Your task to perform on an android device: Open the Play Movies app and select the watchlist tab. Image 0: 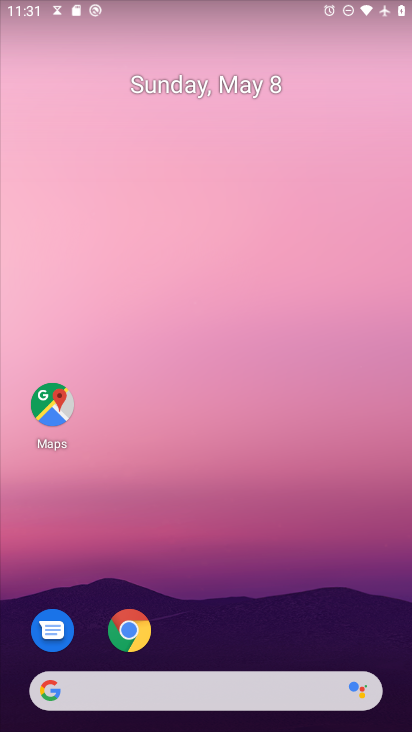
Step 0: drag from (146, 702) to (277, 209)
Your task to perform on an android device: Open the Play Movies app and select the watchlist tab. Image 1: 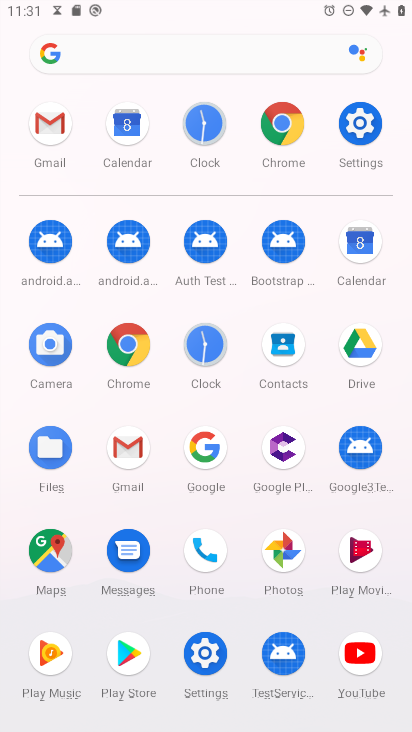
Step 1: click (349, 560)
Your task to perform on an android device: Open the Play Movies app and select the watchlist tab. Image 2: 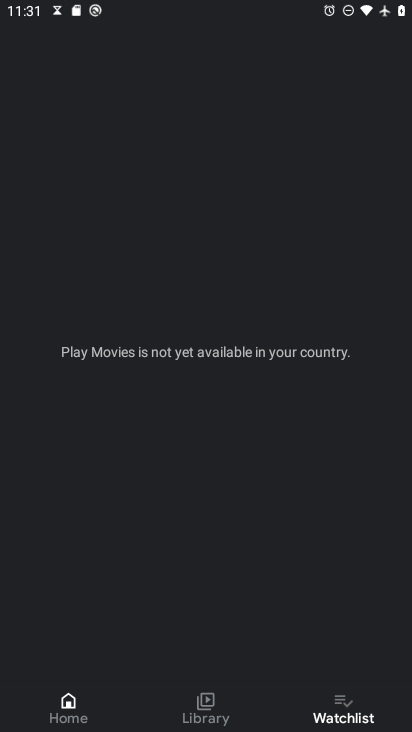
Step 2: click (348, 704)
Your task to perform on an android device: Open the Play Movies app and select the watchlist tab. Image 3: 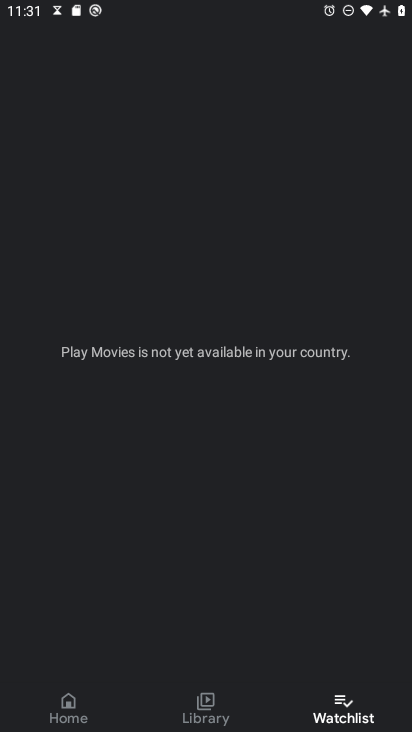
Step 3: task complete